Your task to perform on an android device: Go to ESPN.com Image 0: 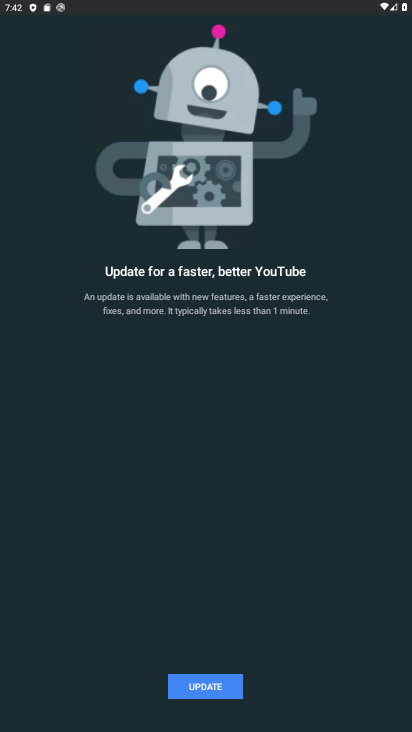
Step 0: press home button
Your task to perform on an android device: Go to ESPN.com Image 1: 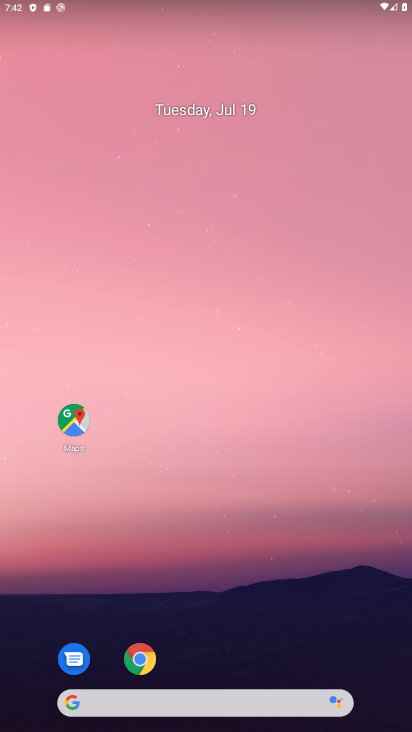
Step 1: click (150, 669)
Your task to perform on an android device: Go to ESPN.com Image 2: 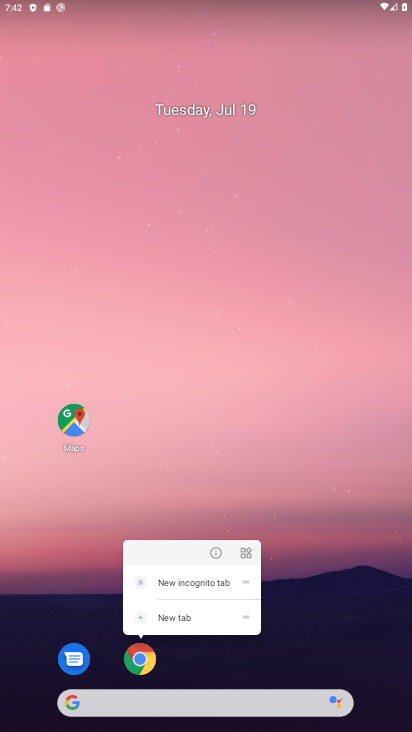
Step 2: click (131, 661)
Your task to perform on an android device: Go to ESPN.com Image 3: 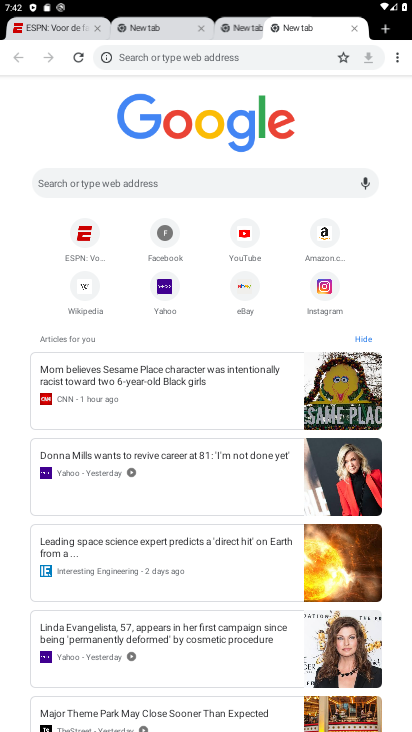
Step 3: click (93, 240)
Your task to perform on an android device: Go to ESPN.com Image 4: 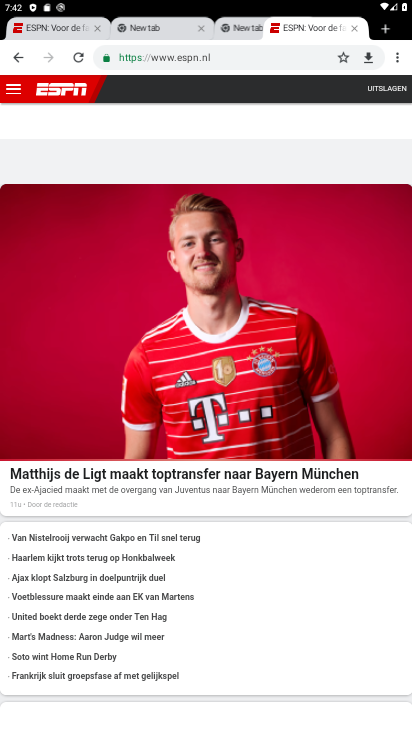
Step 4: task complete